Your task to perform on an android device: Is it going to rain tomorrow? Image 0: 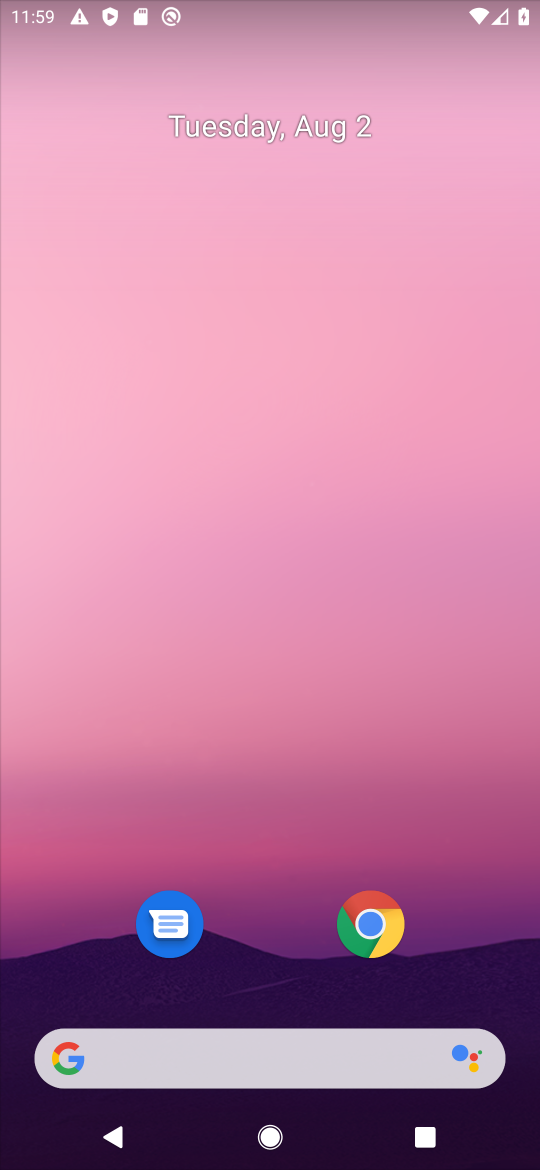
Step 0: click (234, 1046)
Your task to perform on an android device: Is it going to rain tomorrow? Image 1: 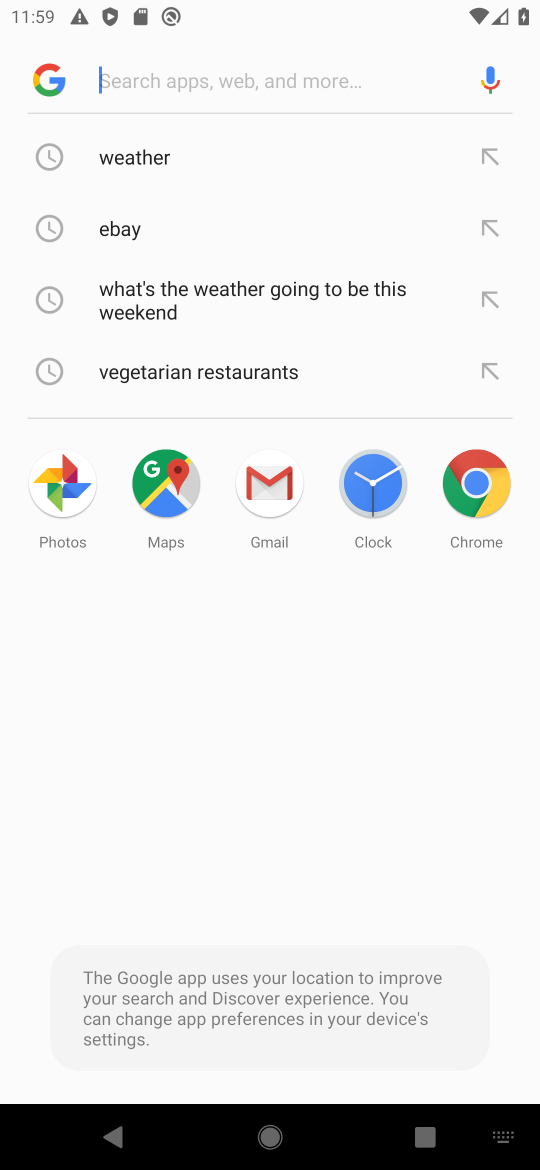
Step 1: click (128, 146)
Your task to perform on an android device: Is it going to rain tomorrow? Image 2: 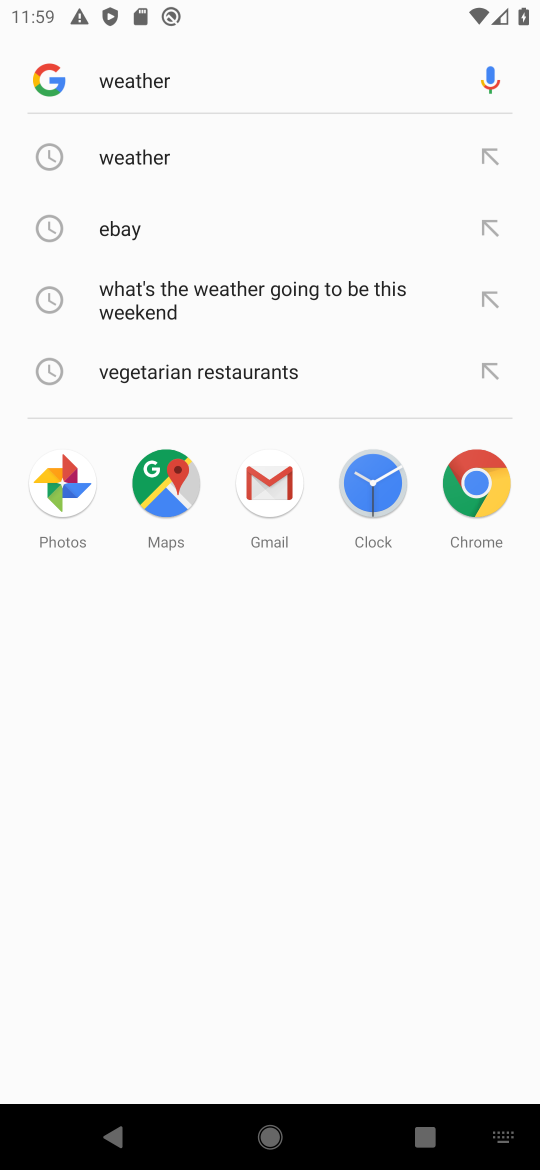
Step 2: click (172, 151)
Your task to perform on an android device: Is it going to rain tomorrow? Image 3: 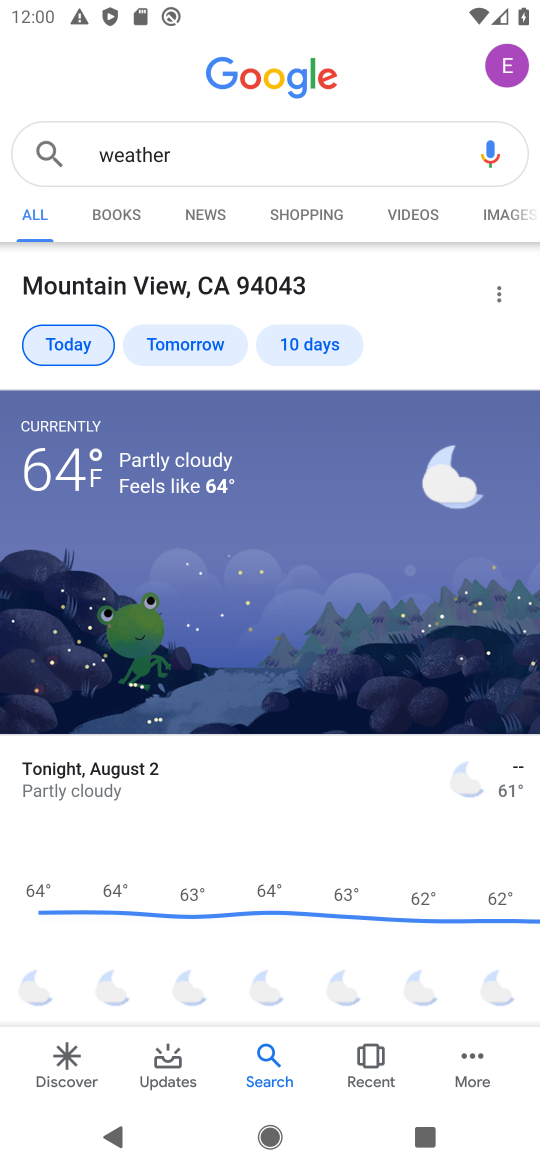
Step 3: click (176, 350)
Your task to perform on an android device: Is it going to rain tomorrow? Image 4: 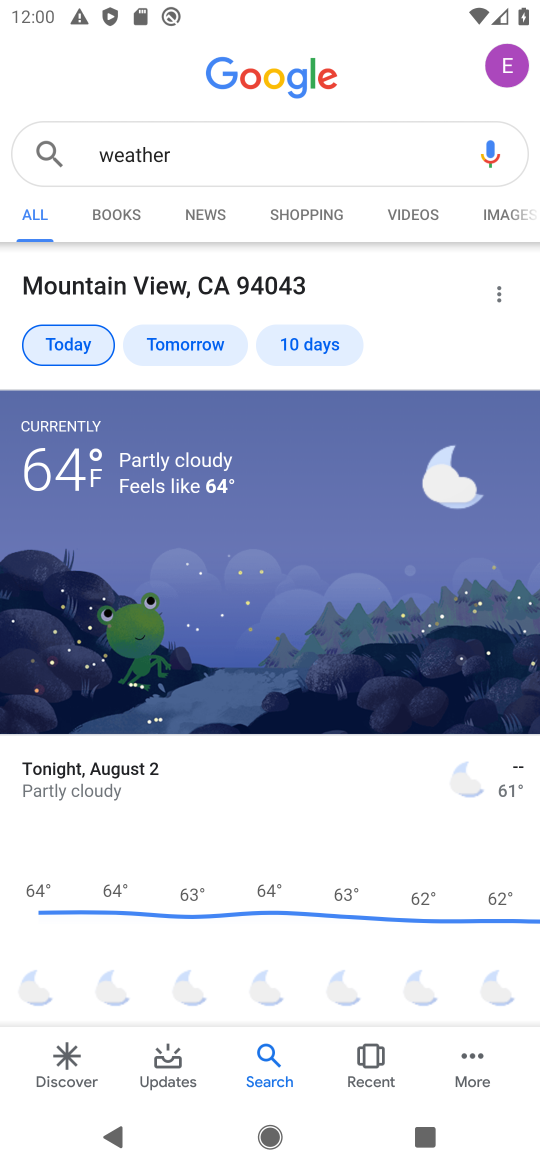
Step 4: click (193, 338)
Your task to perform on an android device: Is it going to rain tomorrow? Image 5: 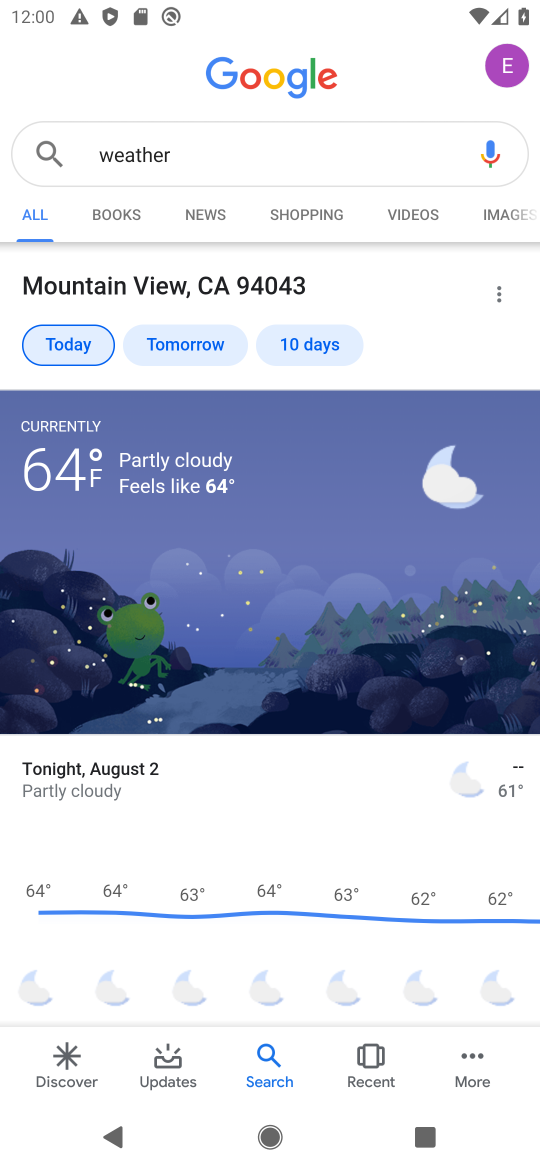
Step 5: click (190, 346)
Your task to perform on an android device: Is it going to rain tomorrow? Image 6: 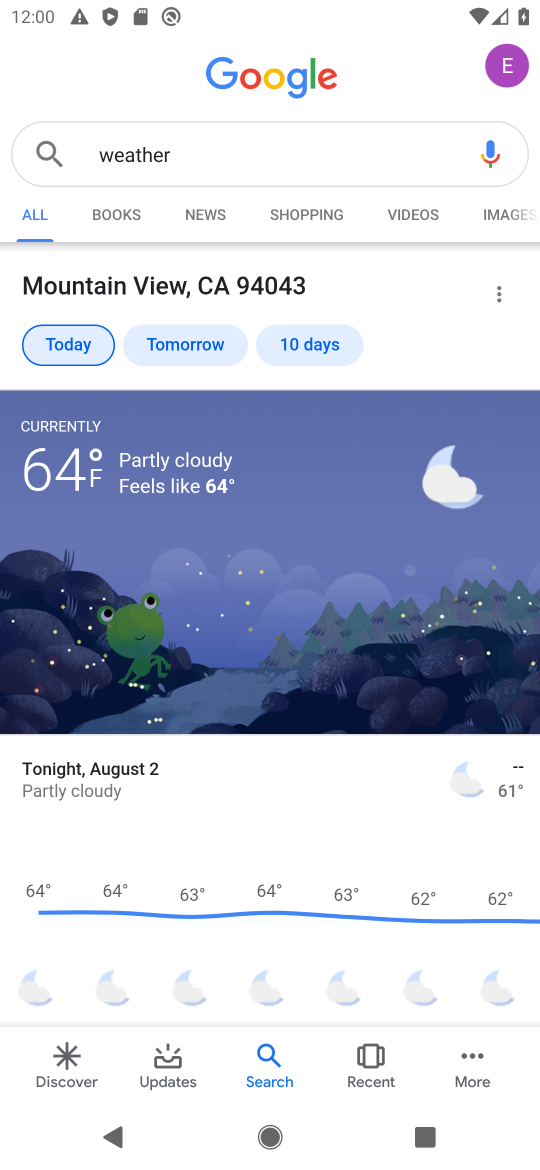
Step 6: click (190, 346)
Your task to perform on an android device: Is it going to rain tomorrow? Image 7: 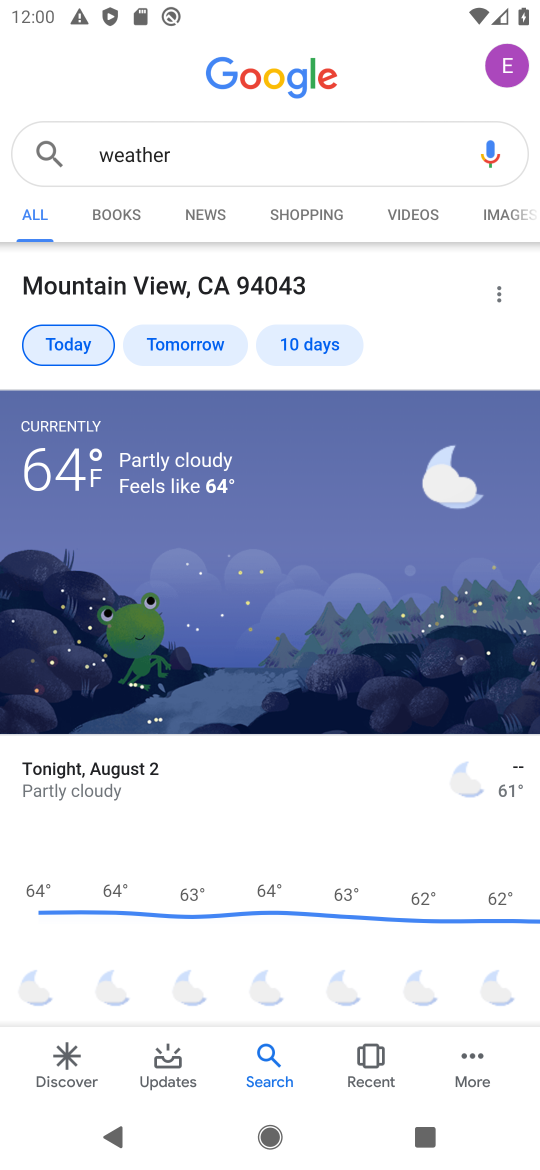
Step 7: click (191, 350)
Your task to perform on an android device: Is it going to rain tomorrow? Image 8: 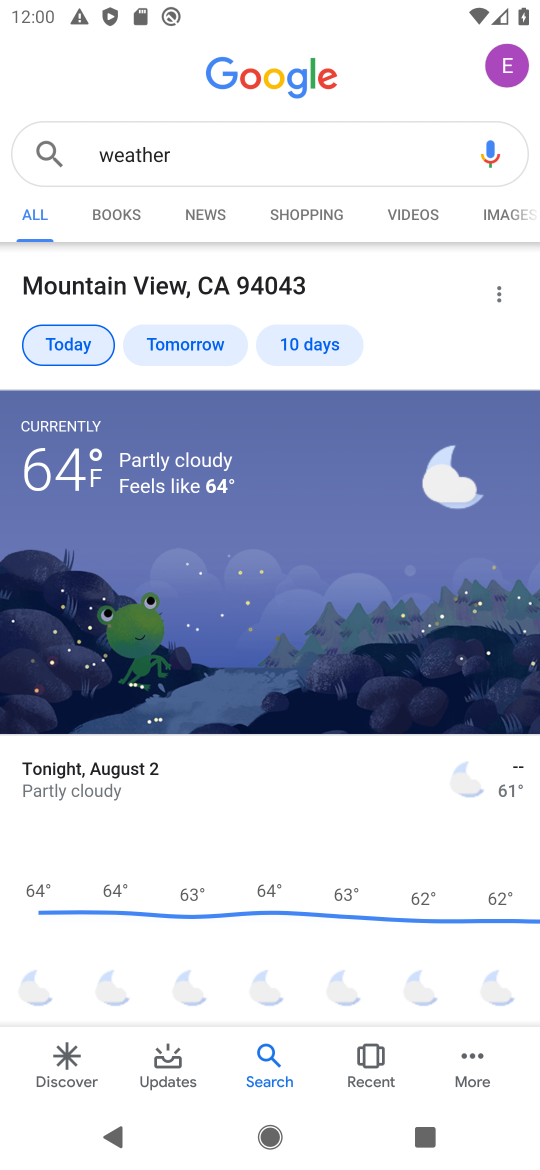
Step 8: click (183, 343)
Your task to perform on an android device: Is it going to rain tomorrow? Image 9: 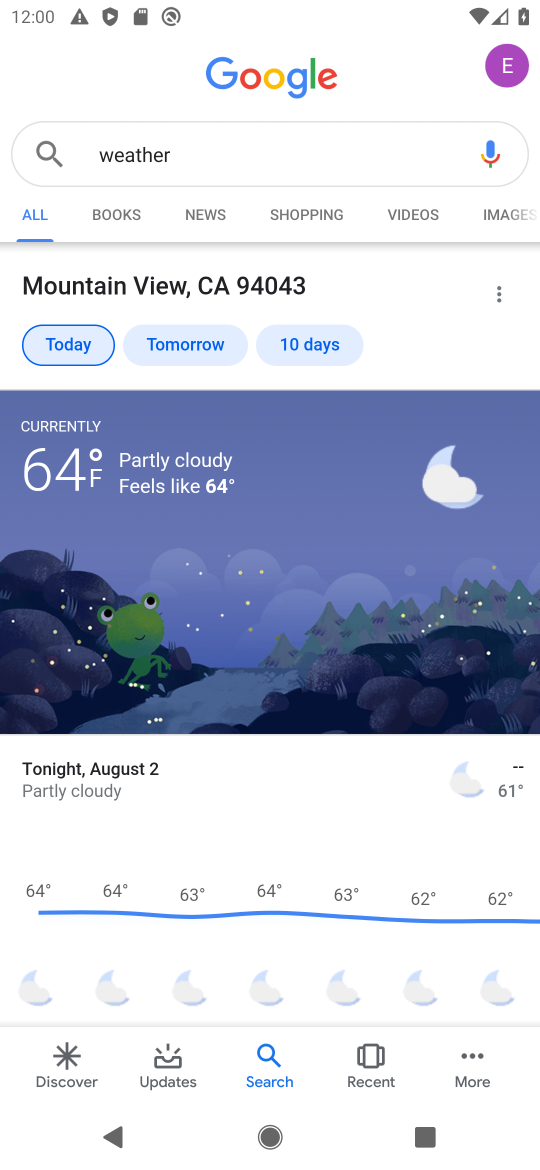
Step 9: click (186, 342)
Your task to perform on an android device: Is it going to rain tomorrow? Image 10: 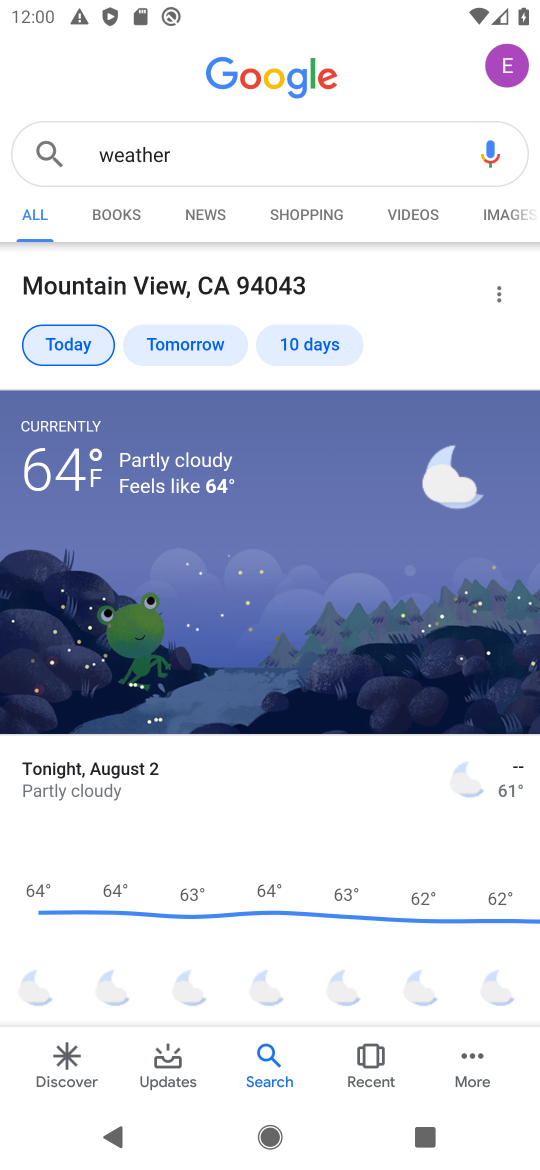
Step 10: click (175, 364)
Your task to perform on an android device: Is it going to rain tomorrow? Image 11: 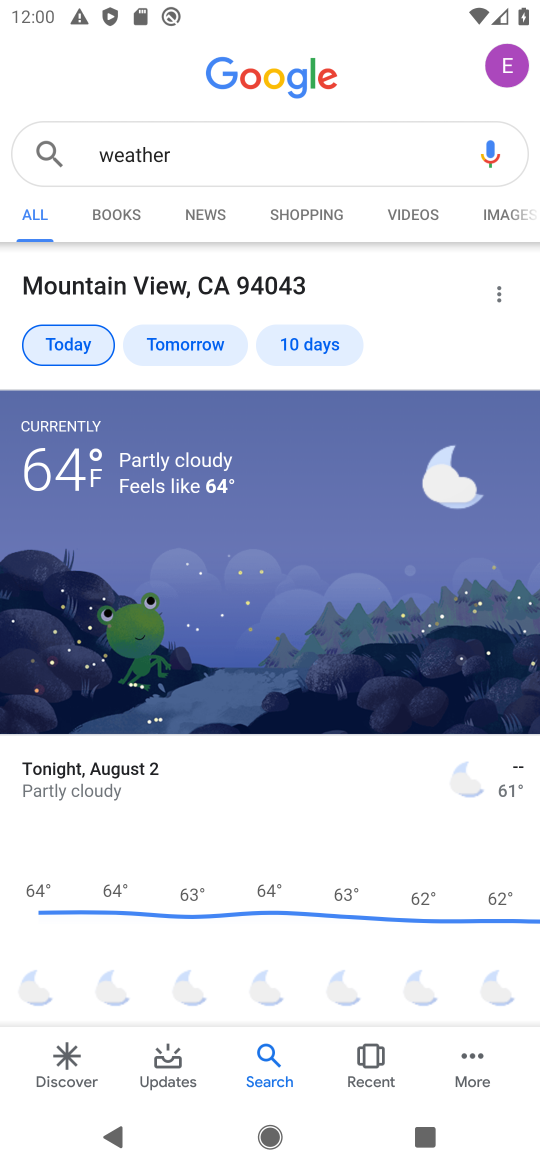
Step 11: click (201, 330)
Your task to perform on an android device: Is it going to rain tomorrow? Image 12: 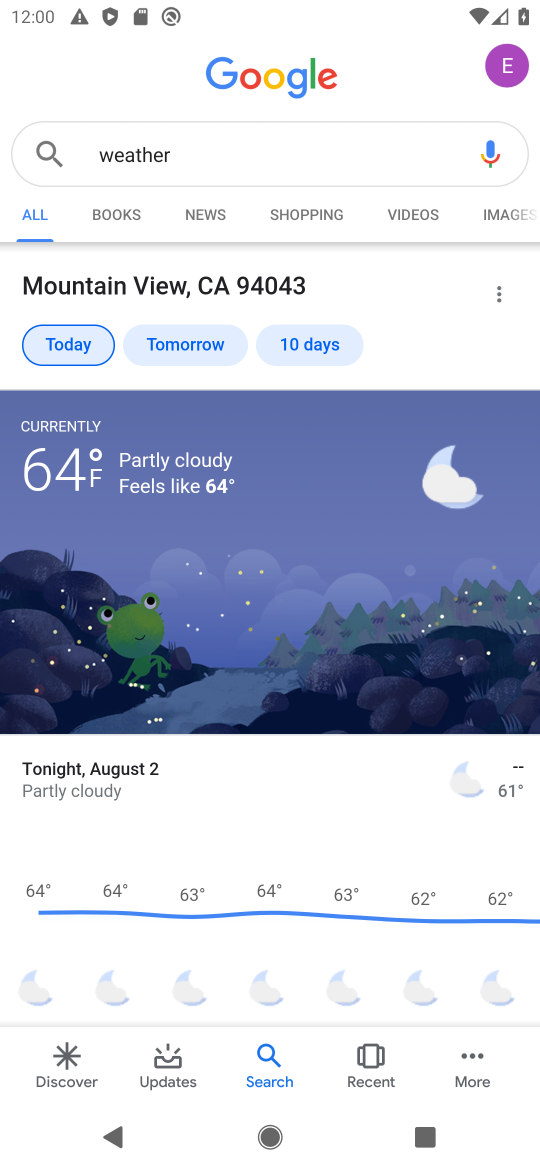
Step 12: click (165, 343)
Your task to perform on an android device: Is it going to rain tomorrow? Image 13: 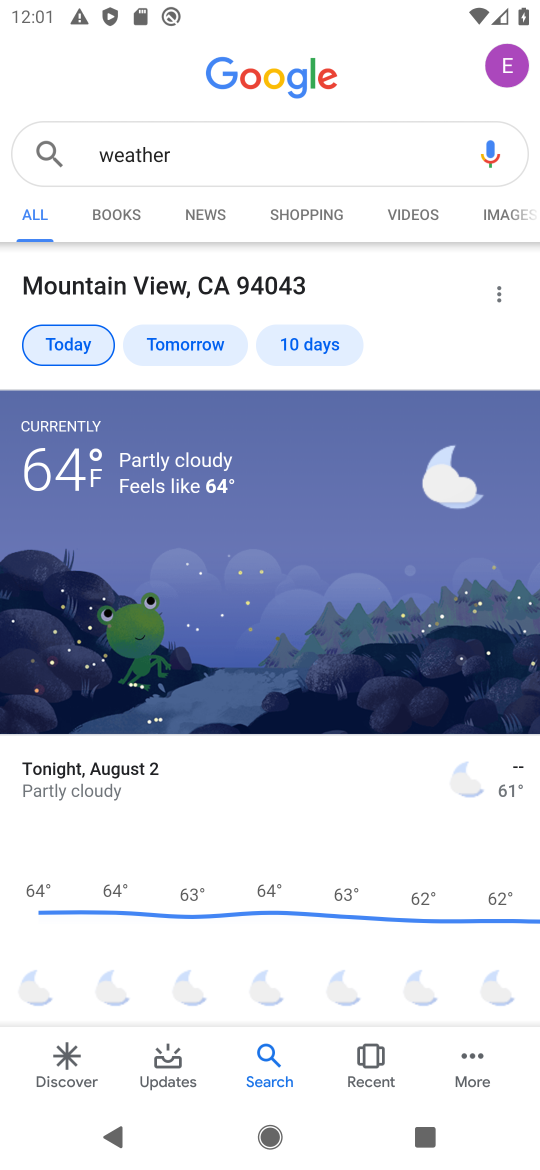
Step 13: click (218, 331)
Your task to perform on an android device: Is it going to rain tomorrow? Image 14: 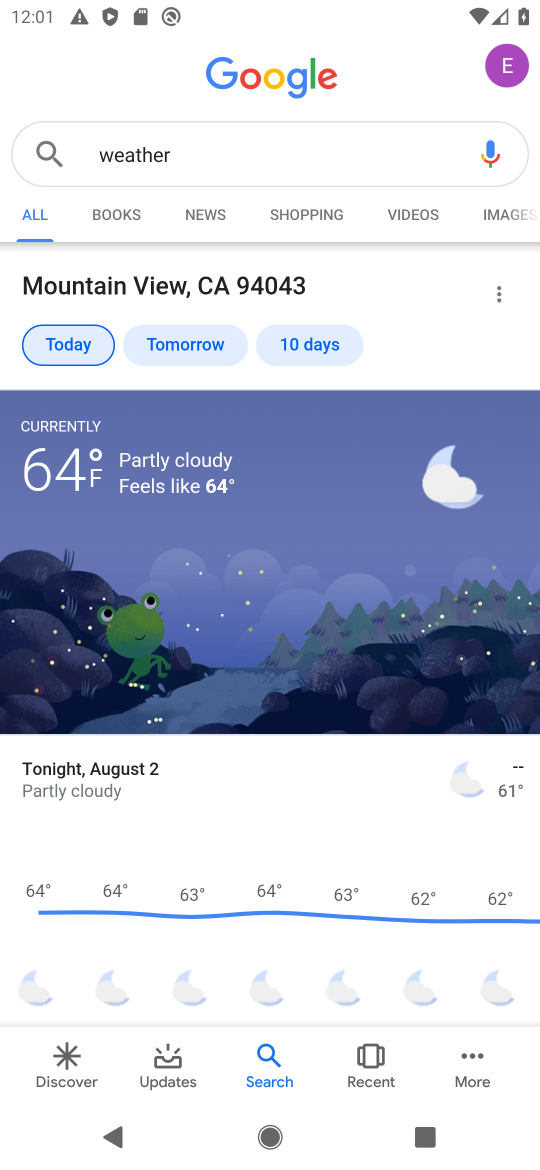
Step 14: task complete